Your task to perform on an android device: Check the news Image 0: 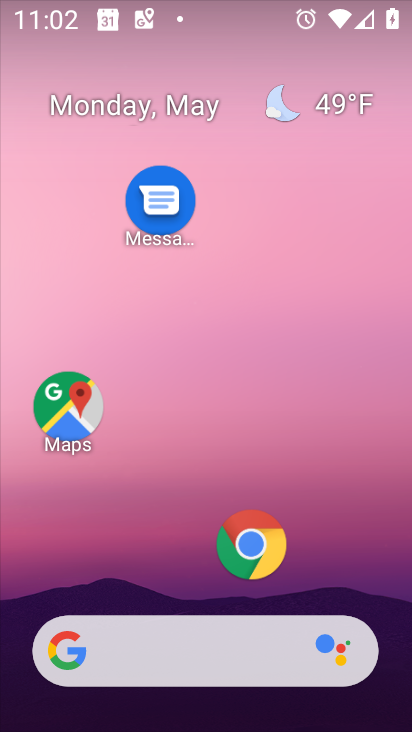
Step 0: drag from (172, 554) to (275, 110)
Your task to perform on an android device: Check the news Image 1: 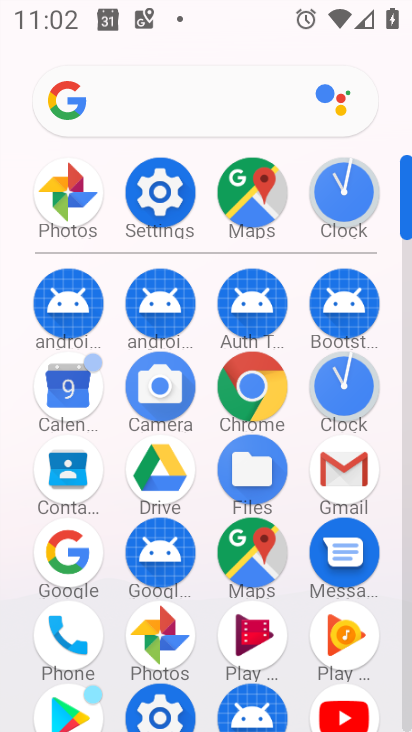
Step 1: click (190, 105)
Your task to perform on an android device: Check the news Image 2: 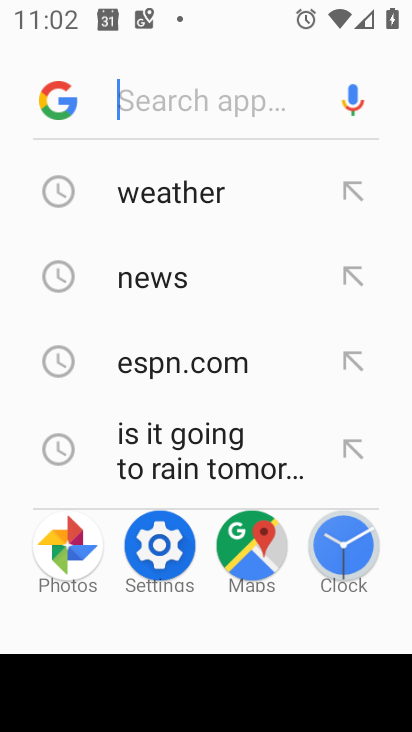
Step 2: type "news"
Your task to perform on an android device: Check the news Image 3: 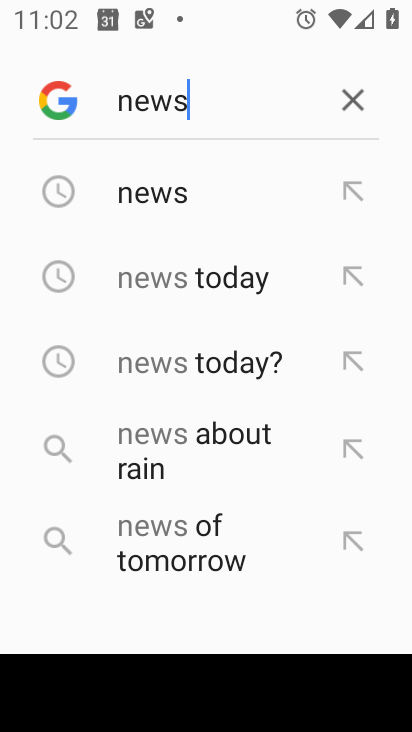
Step 3: click (139, 192)
Your task to perform on an android device: Check the news Image 4: 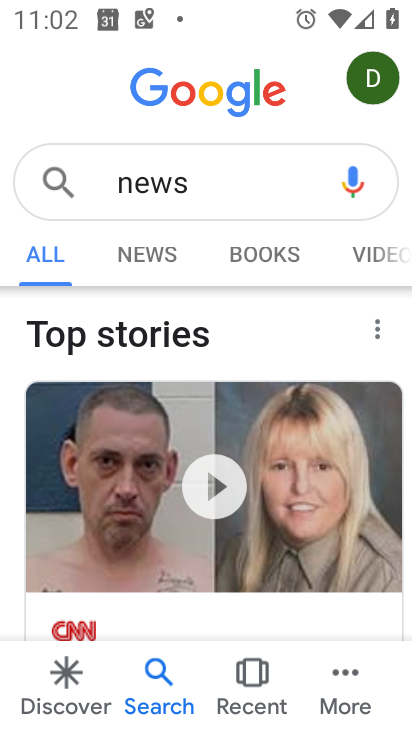
Step 4: click (176, 276)
Your task to perform on an android device: Check the news Image 5: 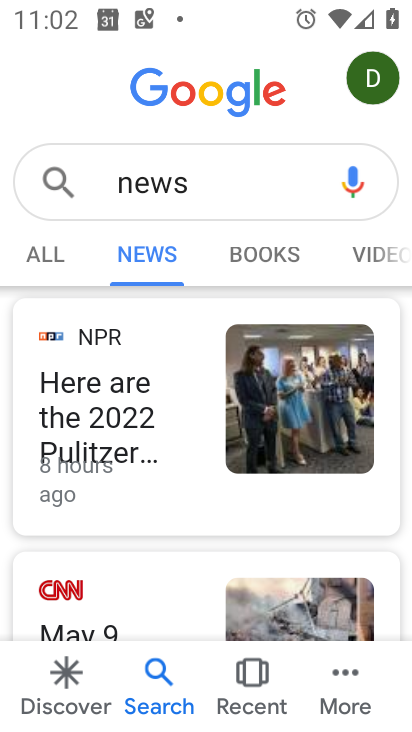
Step 5: task complete